Your task to perform on an android device: turn off data saver in the chrome app Image 0: 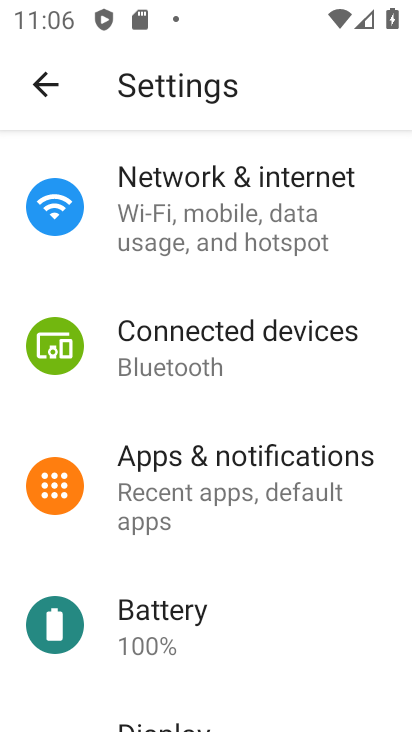
Step 0: press home button
Your task to perform on an android device: turn off data saver in the chrome app Image 1: 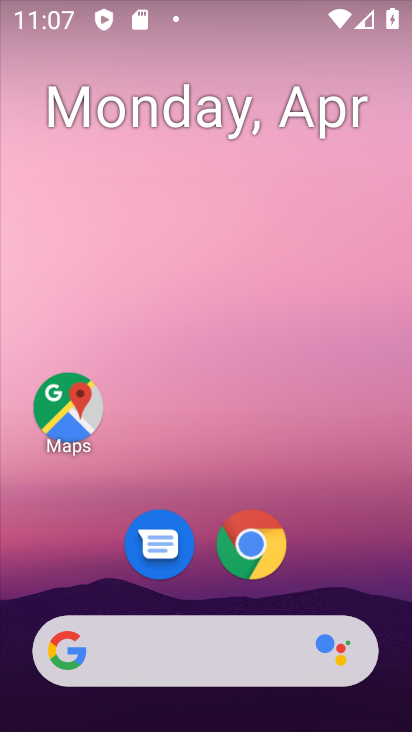
Step 1: click (279, 556)
Your task to perform on an android device: turn off data saver in the chrome app Image 2: 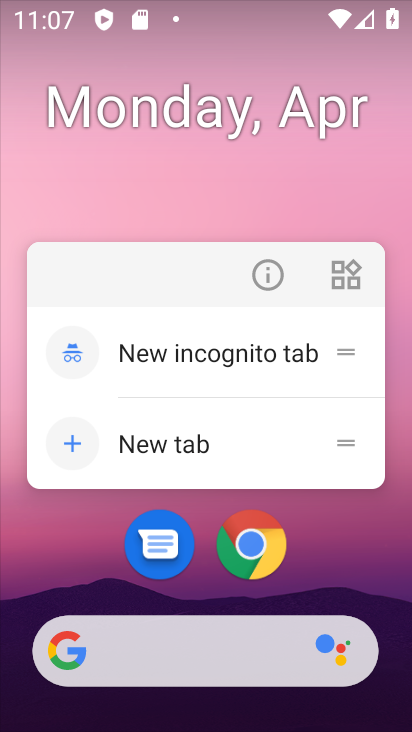
Step 2: click (252, 546)
Your task to perform on an android device: turn off data saver in the chrome app Image 3: 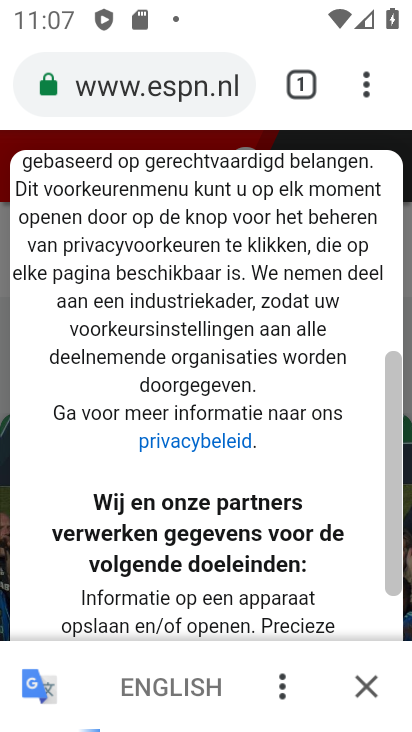
Step 3: click (365, 93)
Your task to perform on an android device: turn off data saver in the chrome app Image 4: 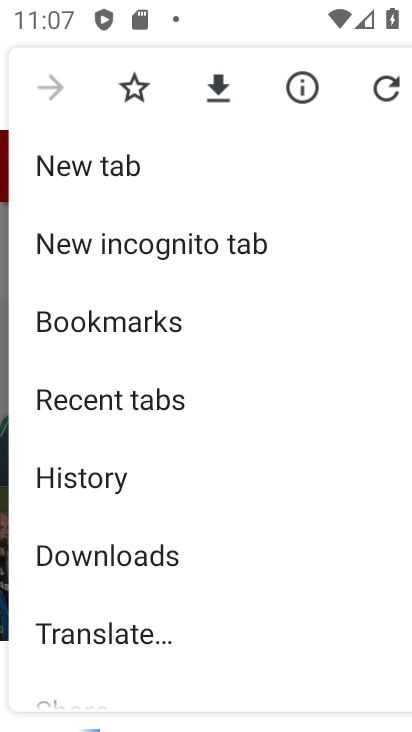
Step 4: drag from (294, 543) to (253, 209)
Your task to perform on an android device: turn off data saver in the chrome app Image 5: 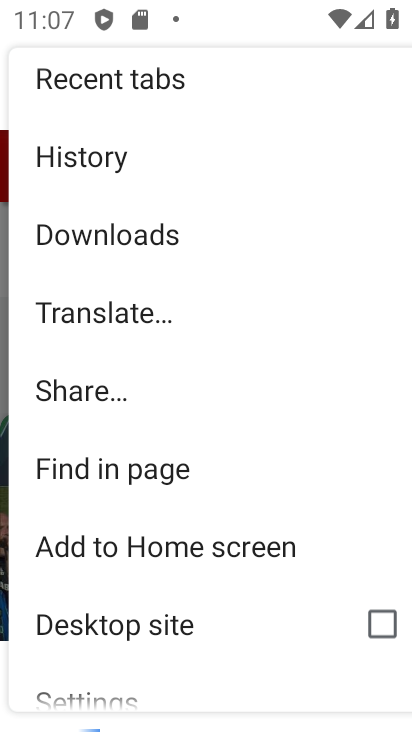
Step 5: drag from (258, 444) to (243, 141)
Your task to perform on an android device: turn off data saver in the chrome app Image 6: 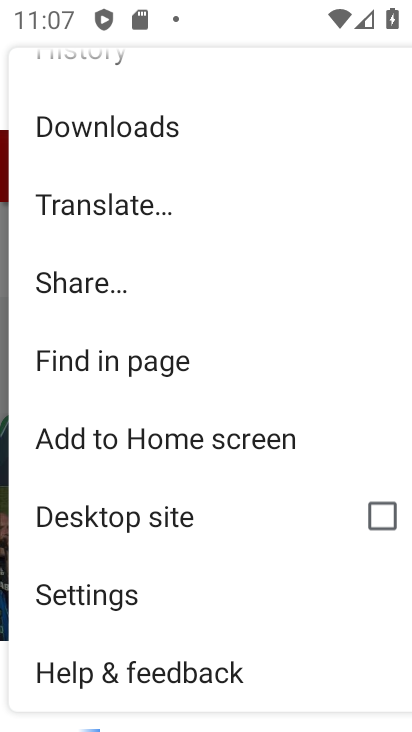
Step 6: click (113, 603)
Your task to perform on an android device: turn off data saver in the chrome app Image 7: 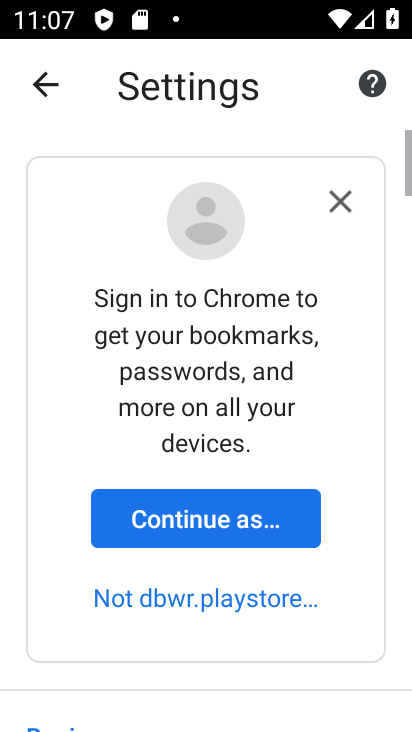
Step 7: drag from (320, 619) to (277, 167)
Your task to perform on an android device: turn off data saver in the chrome app Image 8: 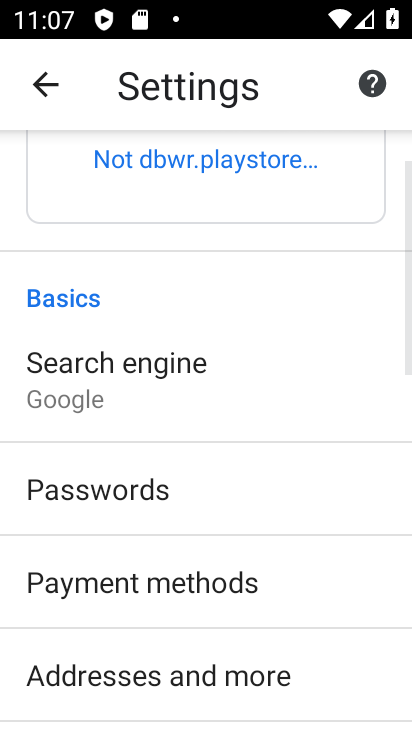
Step 8: drag from (276, 539) to (279, 165)
Your task to perform on an android device: turn off data saver in the chrome app Image 9: 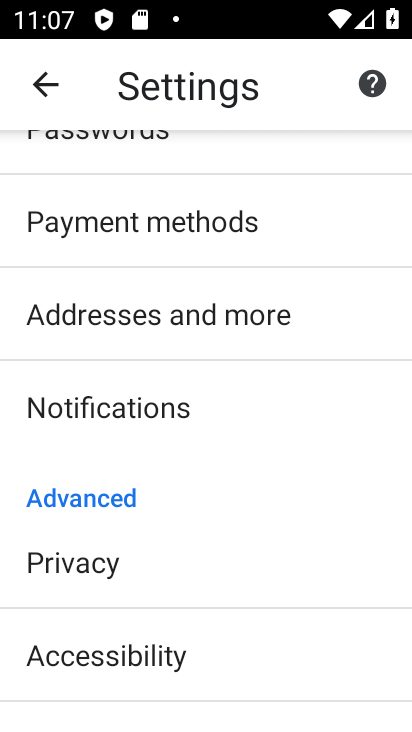
Step 9: drag from (265, 542) to (245, 222)
Your task to perform on an android device: turn off data saver in the chrome app Image 10: 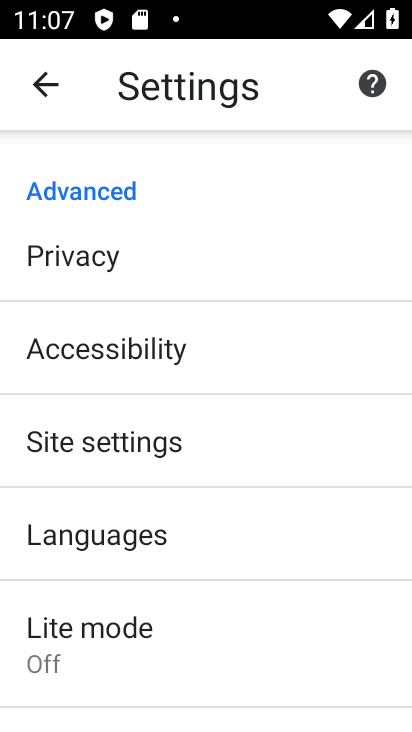
Step 10: drag from (255, 526) to (247, 287)
Your task to perform on an android device: turn off data saver in the chrome app Image 11: 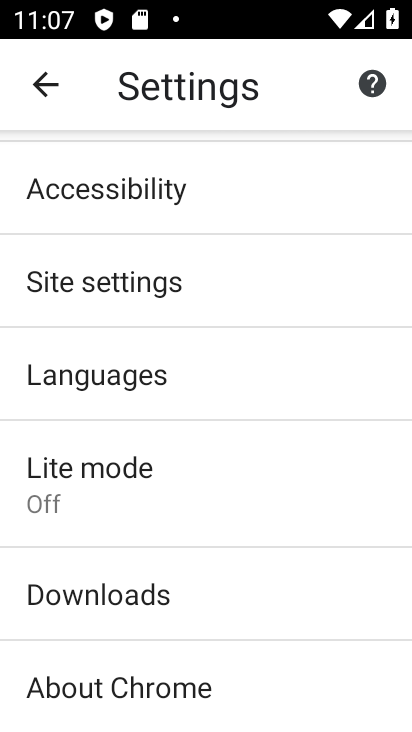
Step 11: click (74, 470)
Your task to perform on an android device: turn off data saver in the chrome app Image 12: 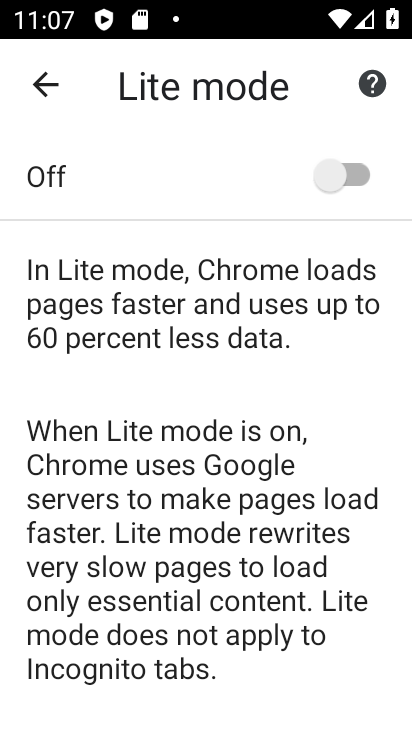
Step 12: task complete